Your task to perform on an android device: check battery use Image 0: 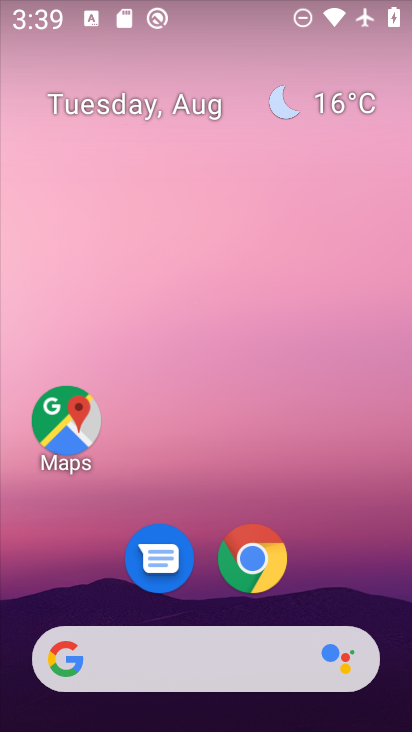
Step 0: drag from (215, 481) to (207, 114)
Your task to perform on an android device: check battery use Image 1: 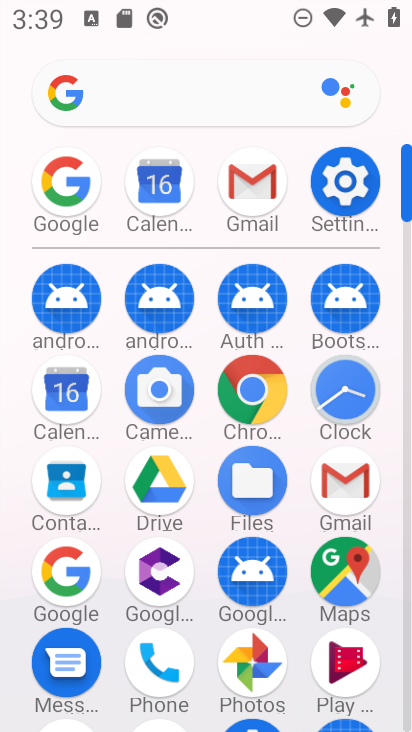
Step 1: click (341, 188)
Your task to perform on an android device: check battery use Image 2: 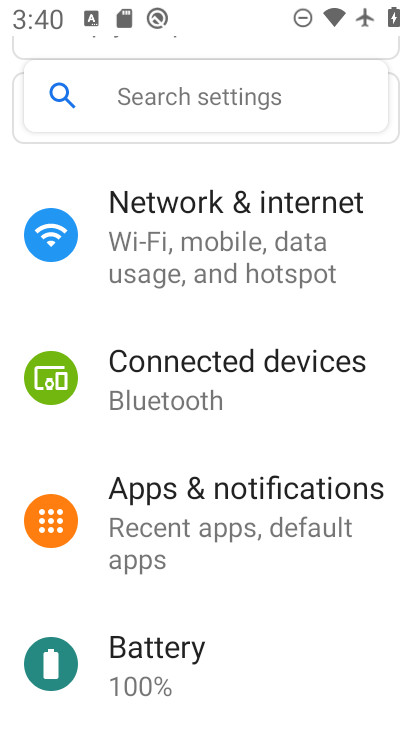
Step 2: click (186, 646)
Your task to perform on an android device: check battery use Image 3: 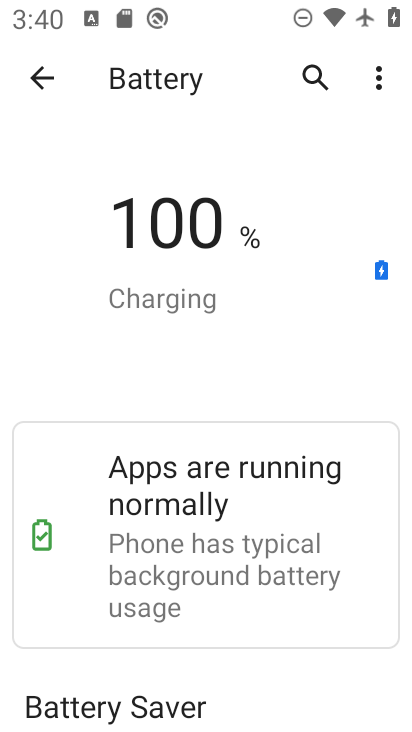
Step 3: click (373, 73)
Your task to perform on an android device: check battery use Image 4: 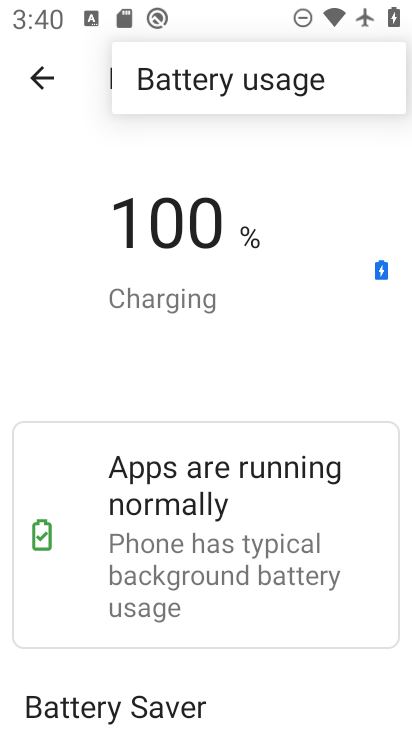
Step 4: click (319, 73)
Your task to perform on an android device: check battery use Image 5: 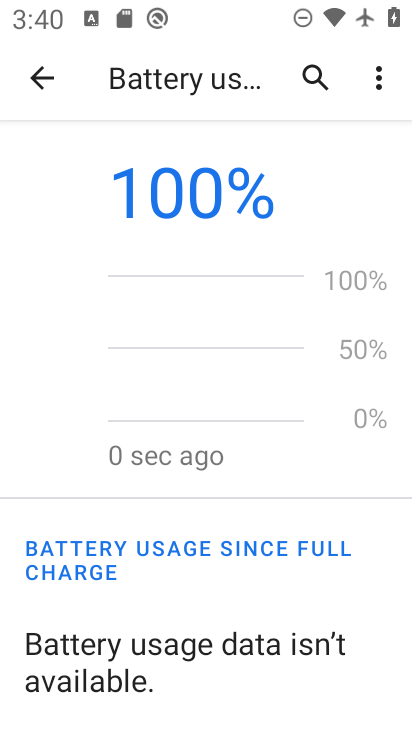
Step 5: task complete